Your task to perform on an android device: Open CNN.com Image 0: 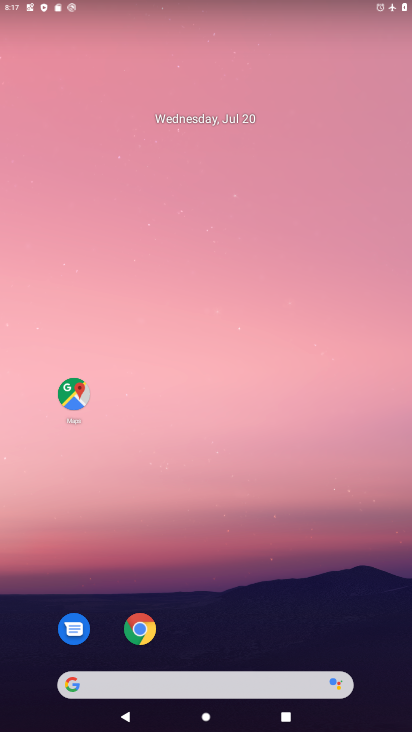
Step 0: click (140, 637)
Your task to perform on an android device: Open CNN.com Image 1: 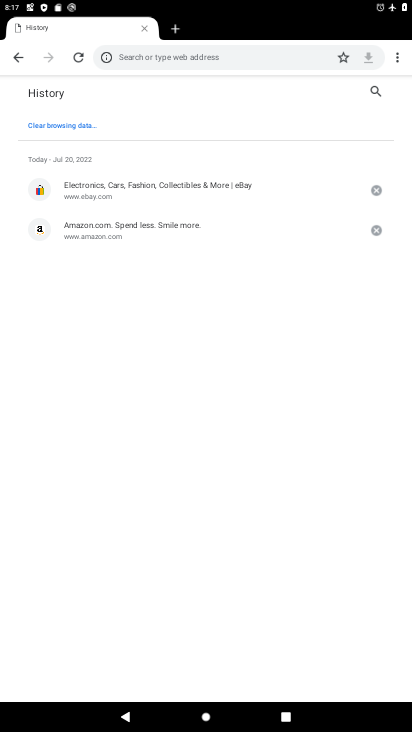
Step 1: click (150, 69)
Your task to perform on an android device: Open CNN.com Image 2: 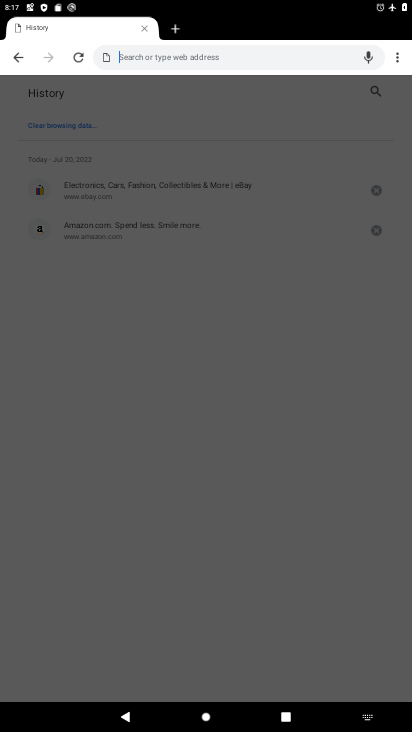
Step 2: type "www.cnn.com"
Your task to perform on an android device: Open CNN.com Image 3: 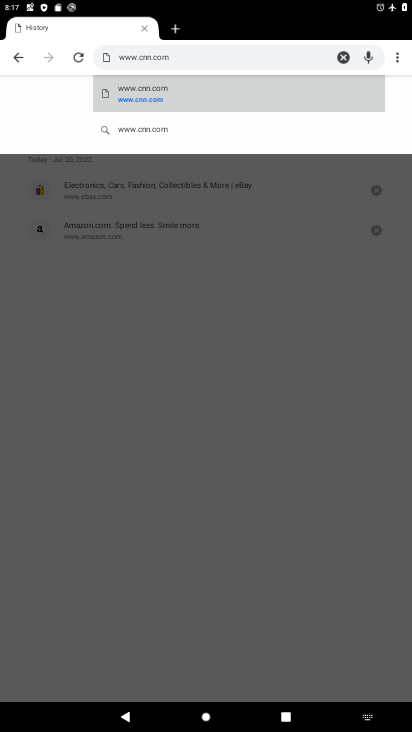
Step 3: click (160, 97)
Your task to perform on an android device: Open CNN.com Image 4: 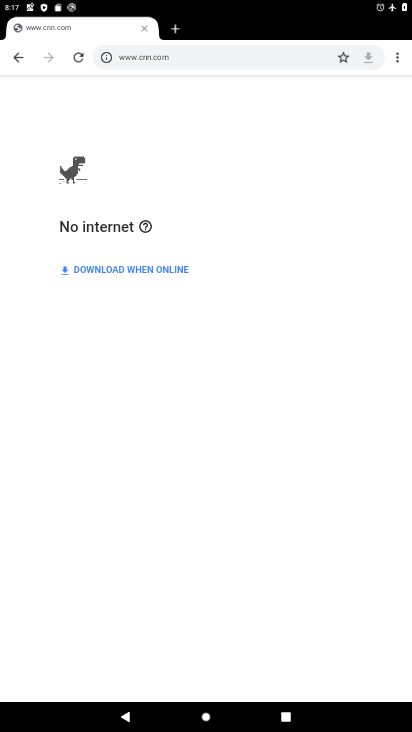
Step 4: task complete